Your task to perform on an android device: Go to CNN.com Image 0: 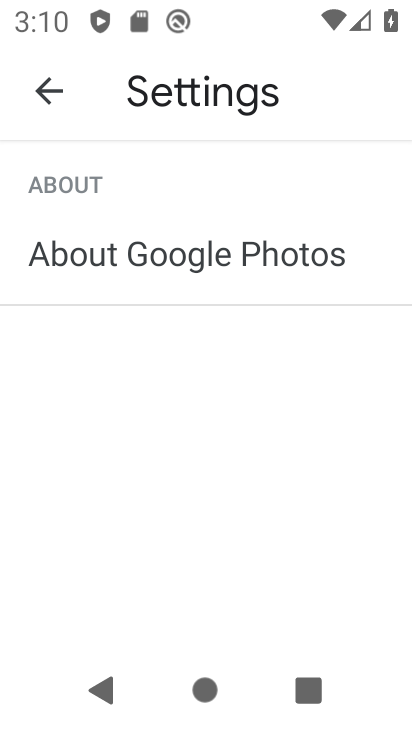
Step 0: press home button
Your task to perform on an android device: Go to CNN.com Image 1: 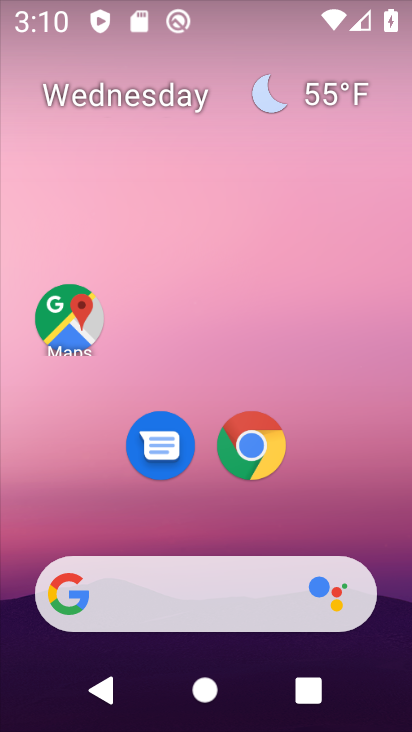
Step 1: click (253, 442)
Your task to perform on an android device: Go to CNN.com Image 2: 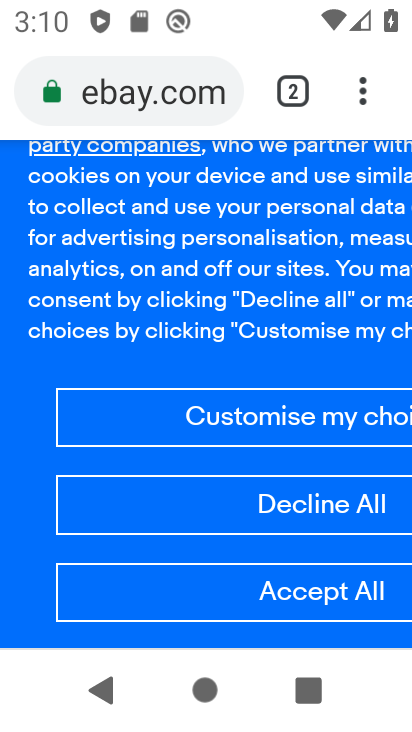
Step 2: click (274, 89)
Your task to perform on an android device: Go to CNN.com Image 3: 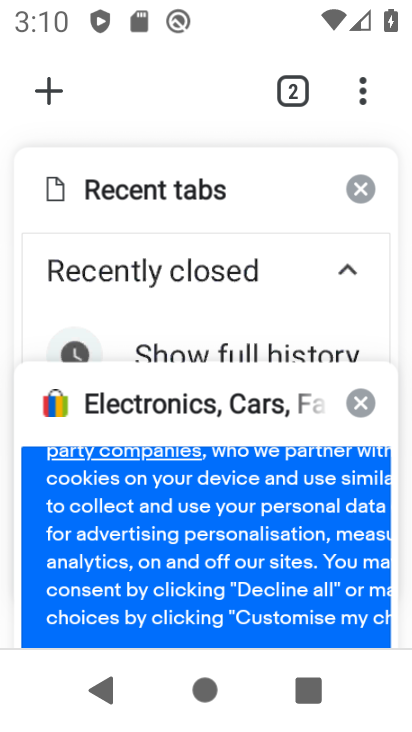
Step 3: click (44, 87)
Your task to perform on an android device: Go to CNN.com Image 4: 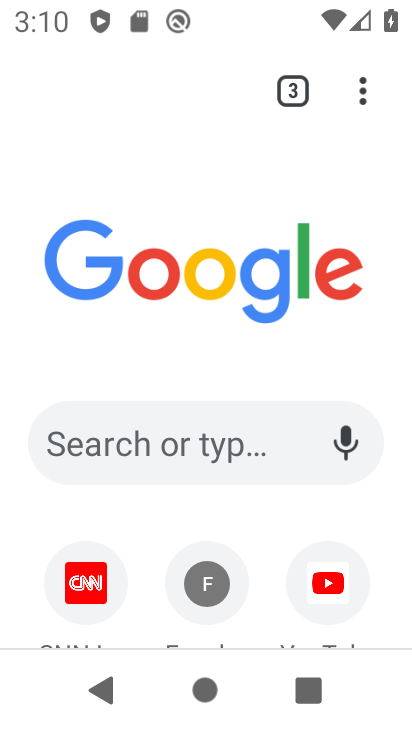
Step 4: click (87, 588)
Your task to perform on an android device: Go to CNN.com Image 5: 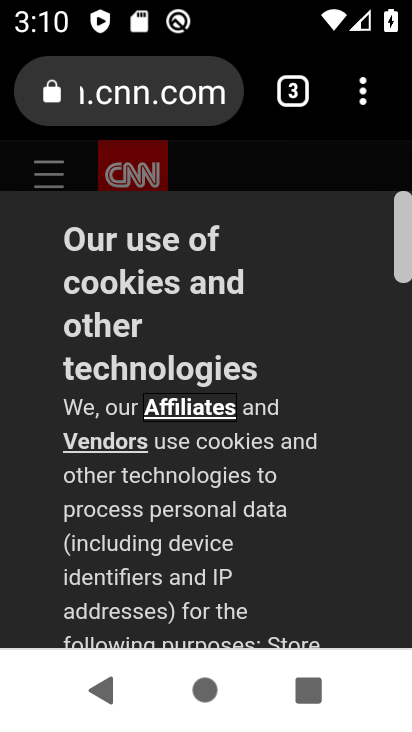
Step 5: task complete